Your task to perform on an android device: open app "Adobe Express: Graphic Design" (install if not already installed) and go to login screen Image 0: 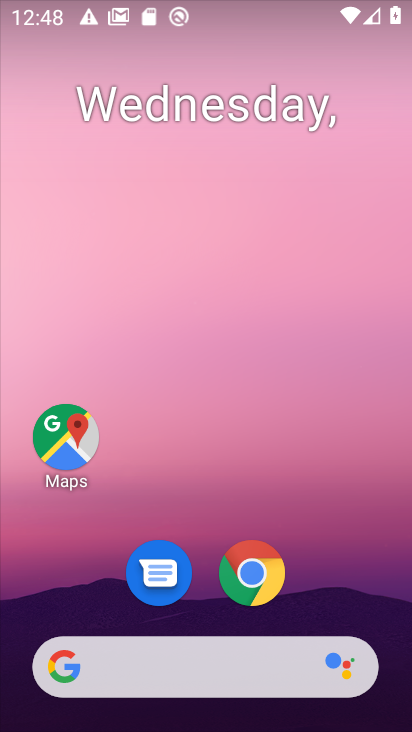
Step 0: press home button
Your task to perform on an android device: open app "Adobe Express: Graphic Design" (install if not already installed) and go to login screen Image 1: 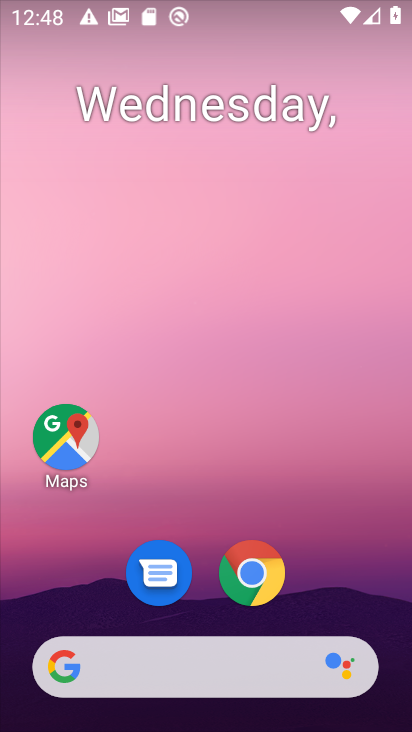
Step 1: drag from (213, 613) to (240, 23)
Your task to perform on an android device: open app "Adobe Express: Graphic Design" (install if not already installed) and go to login screen Image 2: 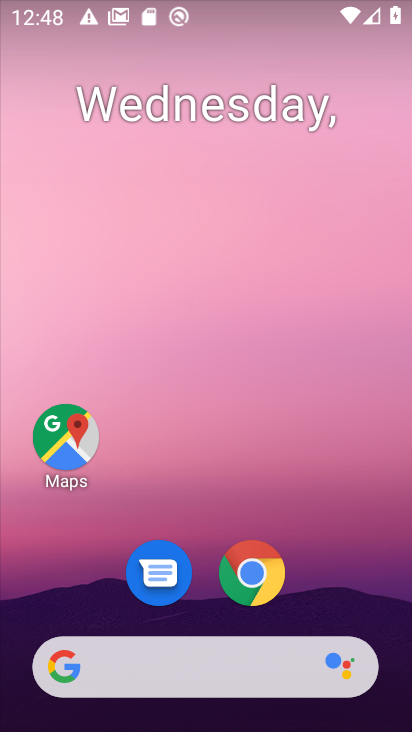
Step 2: drag from (335, 604) to (323, 13)
Your task to perform on an android device: open app "Adobe Express: Graphic Design" (install if not already installed) and go to login screen Image 3: 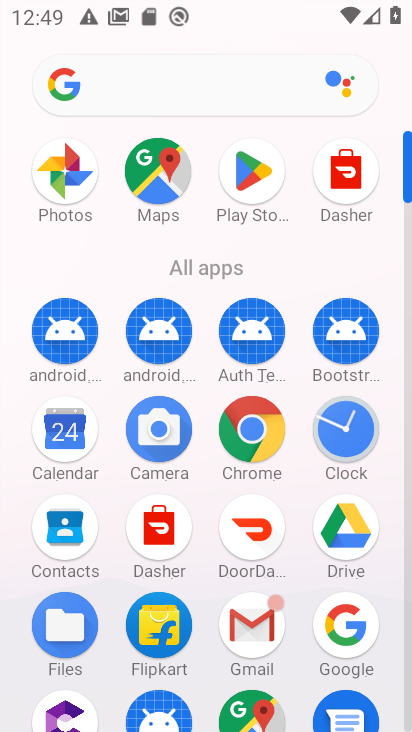
Step 3: click (246, 161)
Your task to perform on an android device: open app "Adobe Express: Graphic Design" (install if not already installed) and go to login screen Image 4: 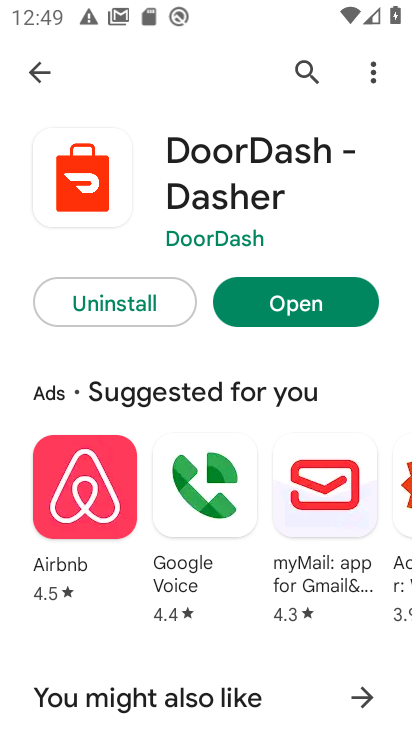
Step 4: click (302, 73)
Your task to perform on an android device: open app "Adobe Express: Graphic Design" (install if not already installed) and go to login screen Image 5: 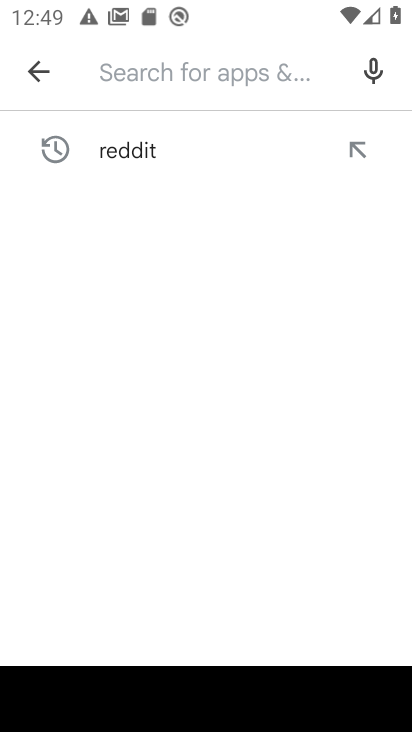
Step 5: type "Adobe Express: Graphic Design"
Your task to perform on an android device: open app "Adobe Express: Graphic Design" (install if not already installed) and go to login screen Image 6: 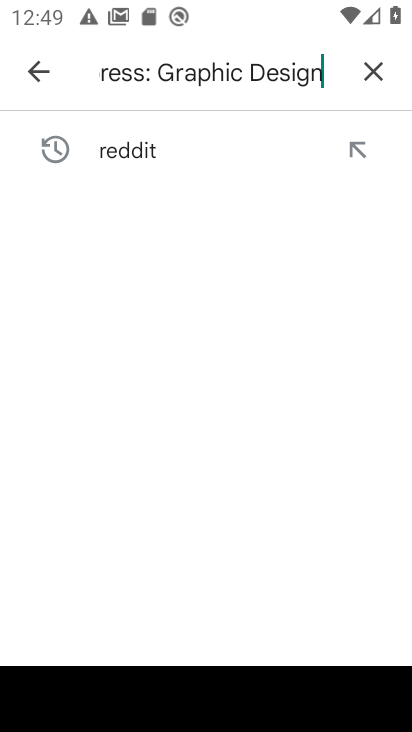
Step 6: type ""
Your task to perform on an android device: open app "Adobe Express: Graphic Design" (install if not already installed) and go to login screen Image 7: 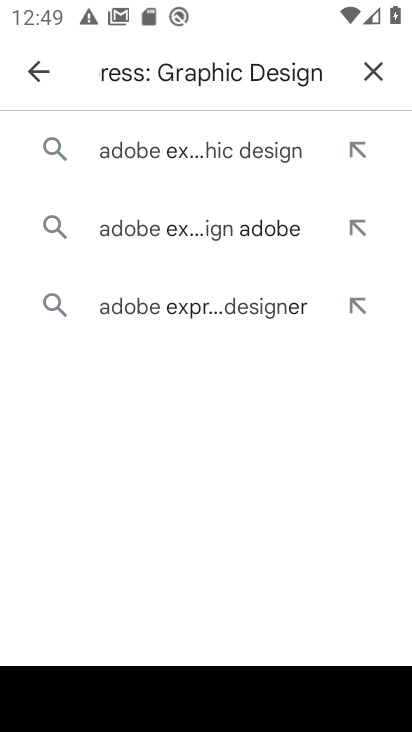
Step 7: click (228, 159)
Your task to perform on an android device: open app "Adobe Express: Graphic Design" (install if not already installed) and go to login screen Image 8: 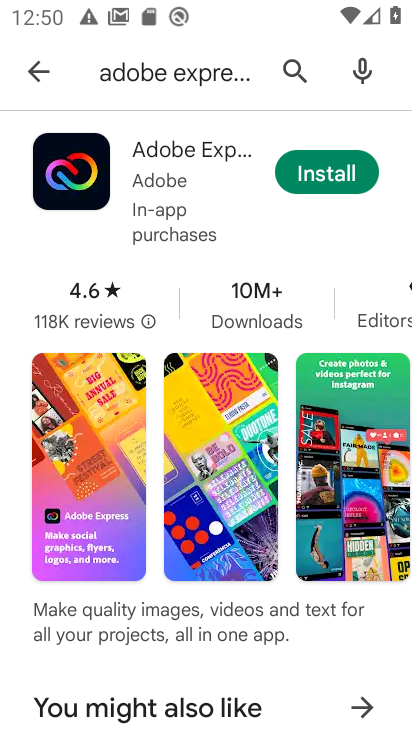
Step 8: click (328, 173)
Your task to perform on an android device: open app "Adobe Express: Graphic Design" (install if not already installed) and go to login screen Image 9: 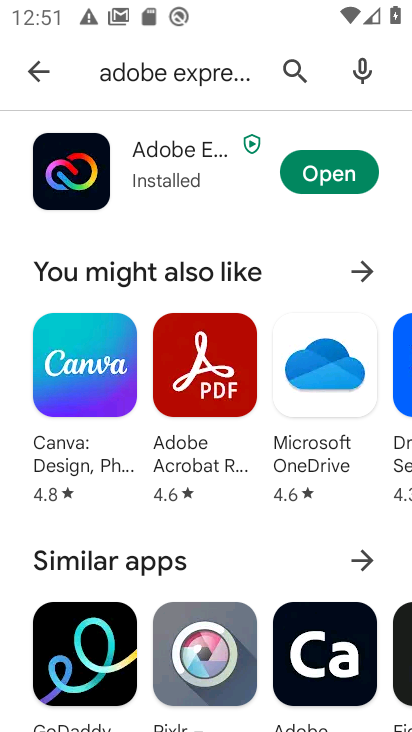
Step 9: click (332, 169)
Your task to perform on an android device: open app "Adobe Express: Graphic Design" (install if not already installed) and go to login screen Image 10: 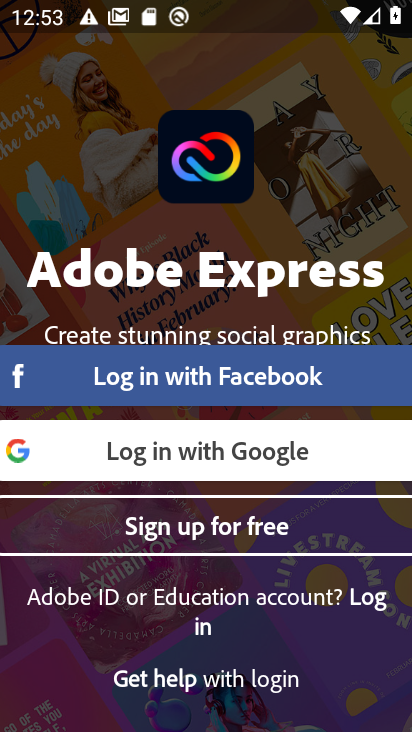
Step 10: click (242, 465)
Your task to perform on an android device: open app "Adobe Express: Graphic Design" (install if not already installed) and go to login screen Image 11: 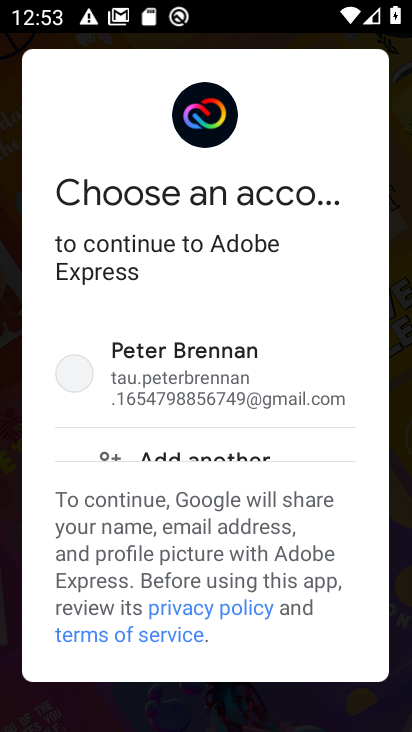
Step 11: click (188, 383)
Your task to perform on an android device: open app "Adobe Express: Graphic Design" (install if not already installed) and go to login screen Image 12: 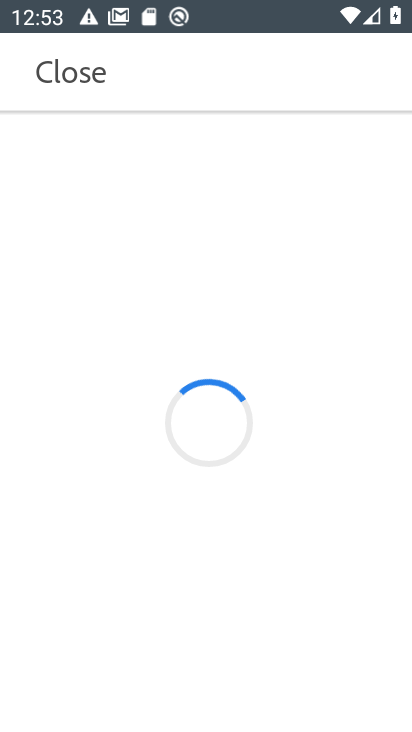
Step 12: click (79, 70)
Your task to perform on an android device: open app "Adobe Express: Graphic Design" (install if not already installed) and go to login screen Image 13: 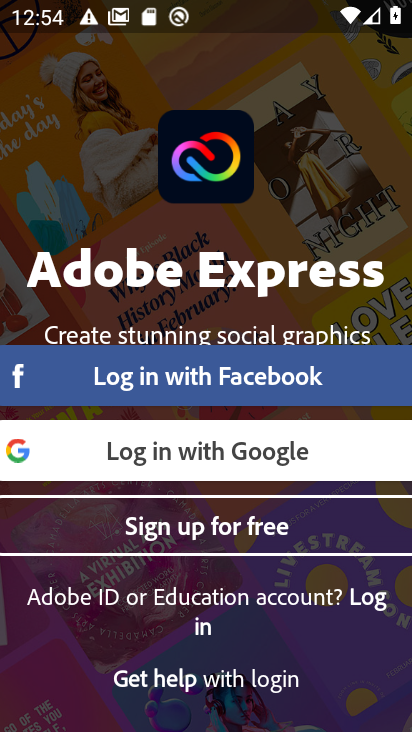
Step 13: task complete